Your task to perform on an android device: Open eBay Image 0: 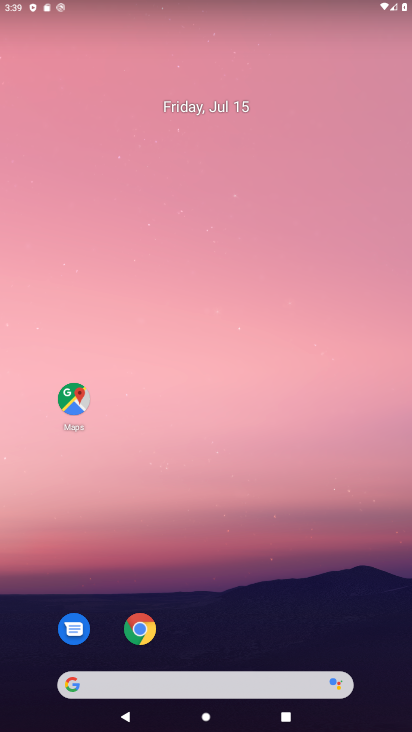
Step 0: press home button
Your task to perform on an android device: Open eBay Image 1: 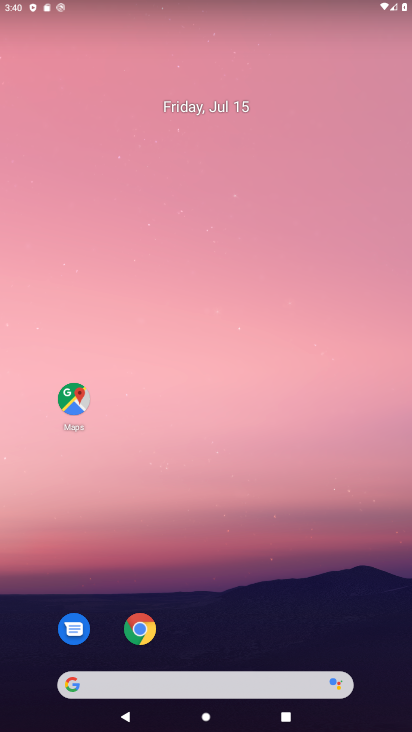
Step 1: type " eBay"
Your task to perform on an android device: Open eBay Image 2: 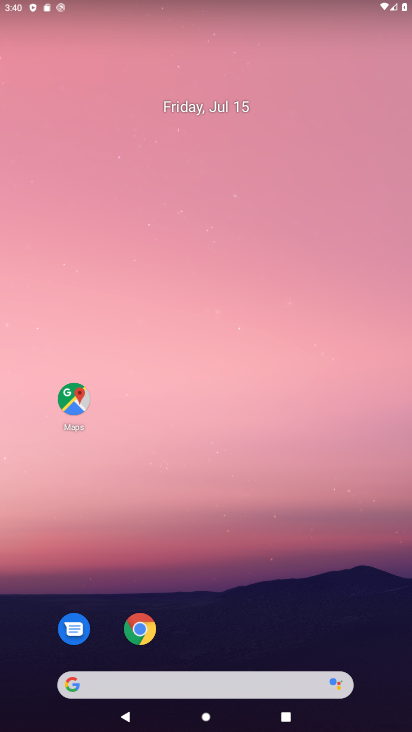
Step 2: click (181, 667)
Your task to perform on an android device: Open eBay Image 3: 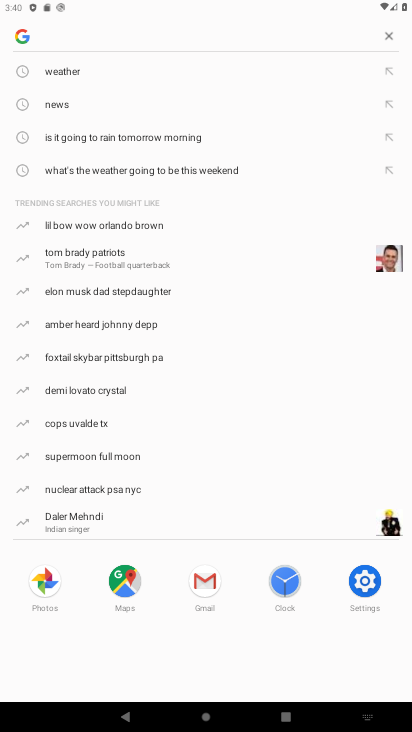
Step 3: click (97, 37)
Your task to perform on an android device: Open eBay Image 4: 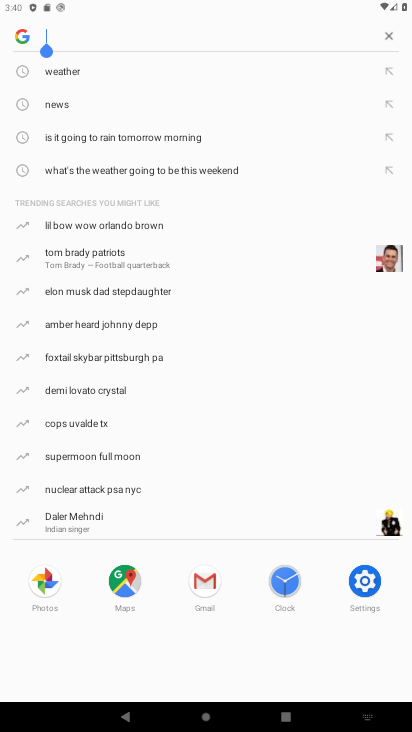
Step 4: type " eBay"
Your task to perform on an android device: Open eBay Image 5: 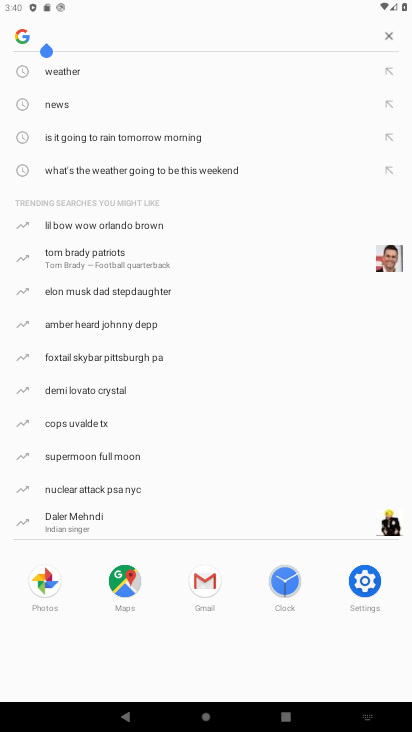
Step 5: click (69, 39)
Your task to perform on an android device: Open eBay Image 6: 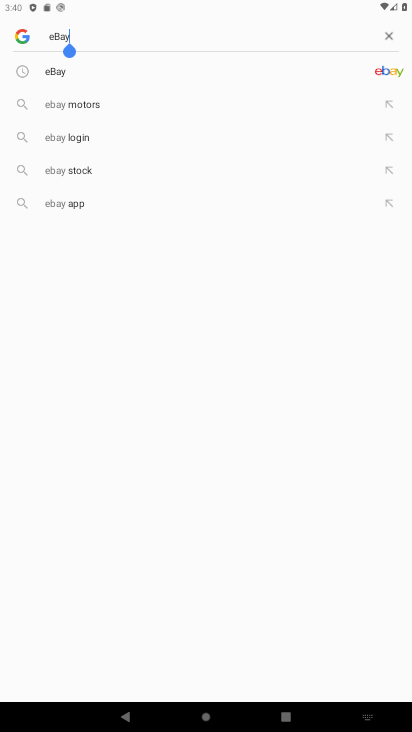
Step 6: click (382, 65)
Your task to perform on an android device: Open eBay Image 7: 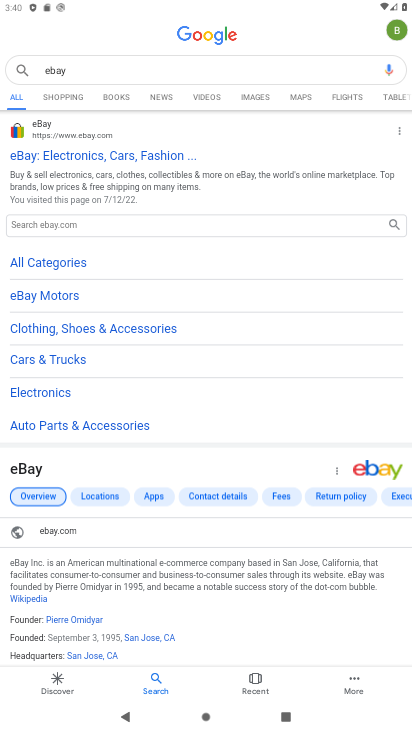
Step 7: click (23, 126)
Your task to perform on an android device: Open eBay Image 8: 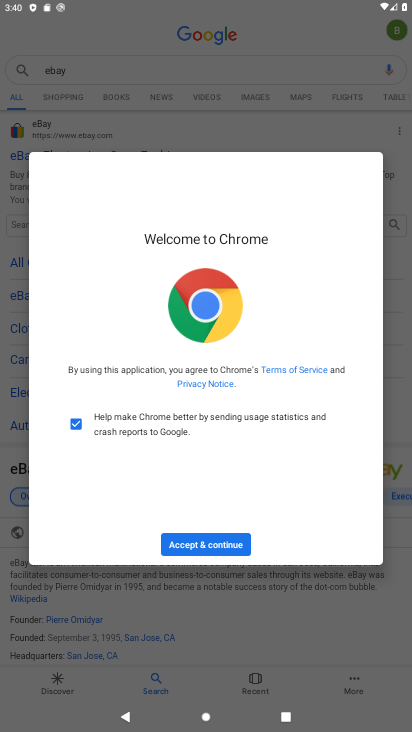
Step 8: click (213, 551)
Your task to perform on an android device: Open eBay Image 9: 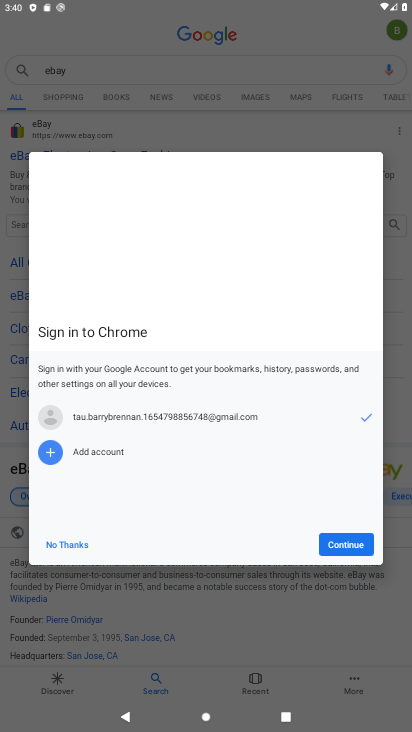
Step 9: click (332, 540)
Your task to perform on an android device: Open eBay Image 10: 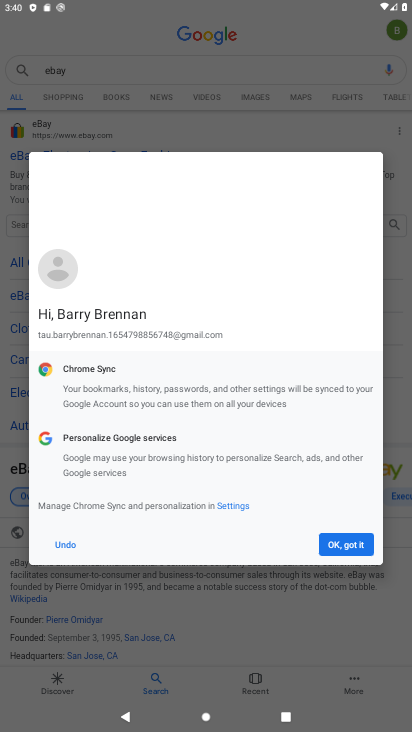
Step 10: click (332, 540)
Your task to perform on an android device: Open eBay Image 11: 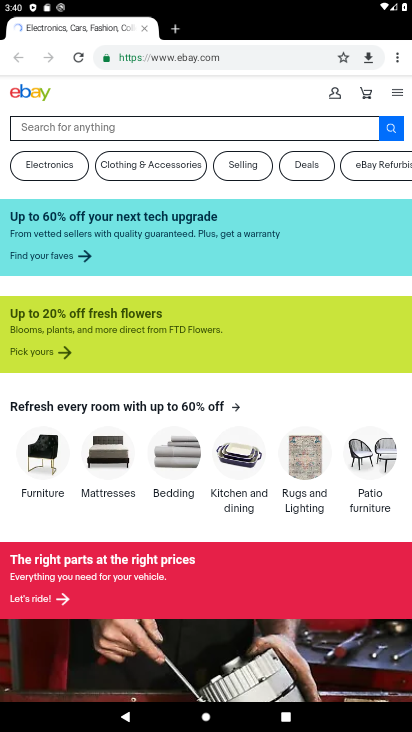
Step 11: task complete